Your task to perform on an android device: Open the phone app and click the voicemail tab. Image 0: 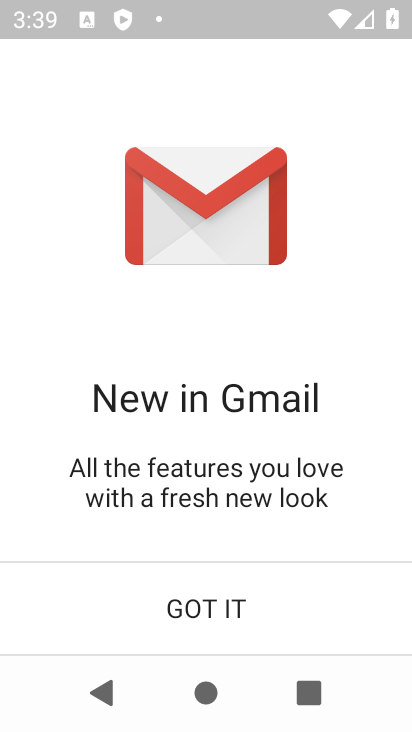
Step 0: click (166, 622)
Your task to perform on an android device: Open the phone app and click the voicemail tab. Image 1: 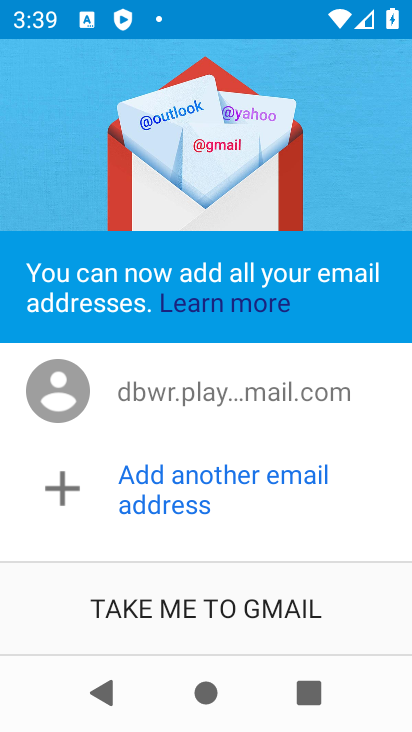
Step 1: click (166, 622)
Your task to perform on an android device: Open the phone app and click the voicemail tab. Image 2: 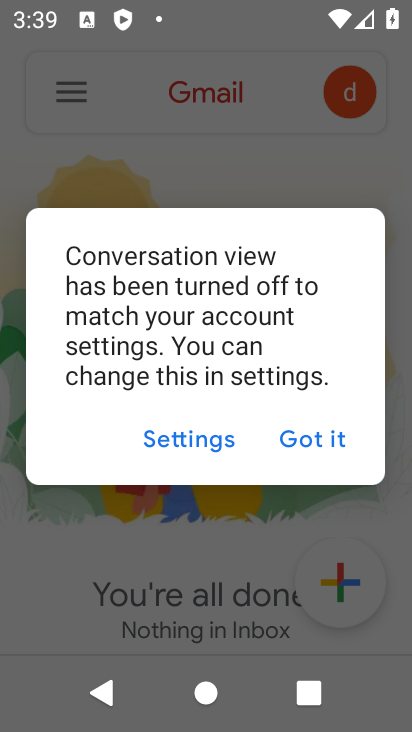
Step 2: task complete